Your task to perform on an android device: Go to sound settings Image 0: 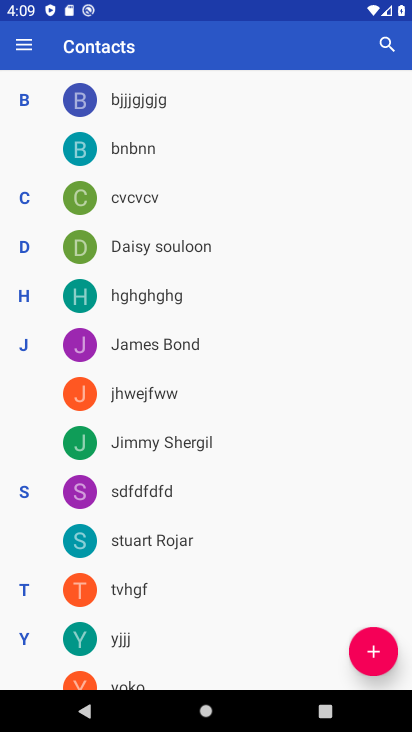
Step 0: press home button
Your task to perform on an android device: Go to sound settings Image 1: 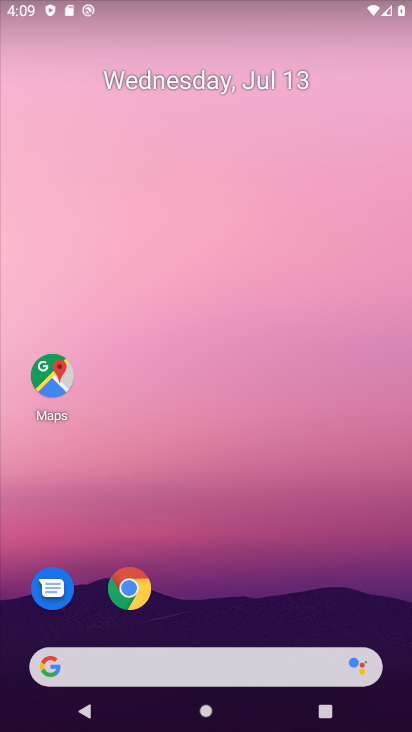
Step 1: task complete